Your task to perform on an android device: delete the emails in spam in the gmail app Image 0: 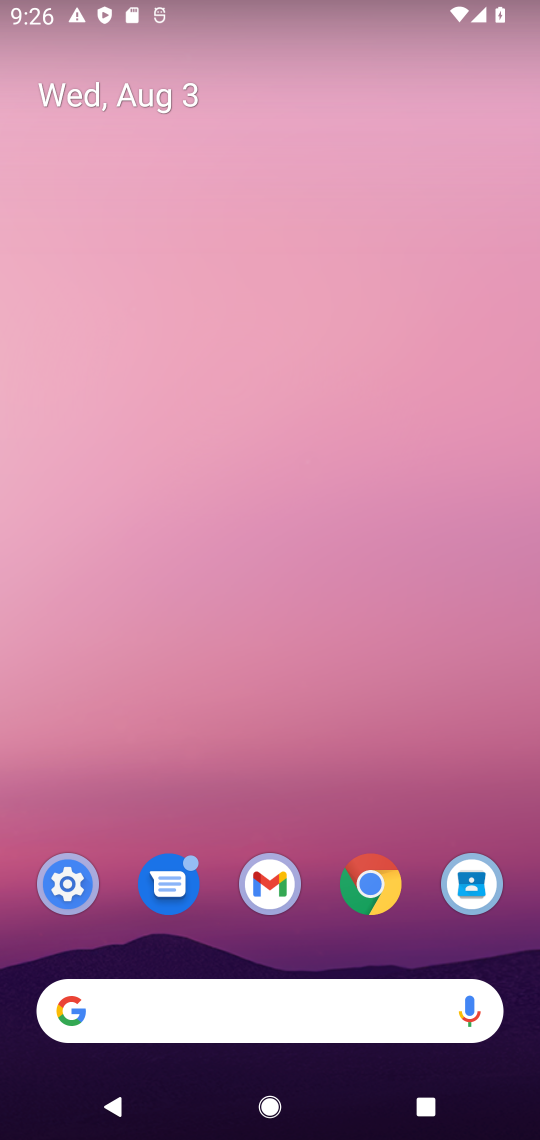
Step 0: drag from (260, 681) to (279, 20)
Your task to perform on an android device: delete the emails in spam in the gmail app Image 1: 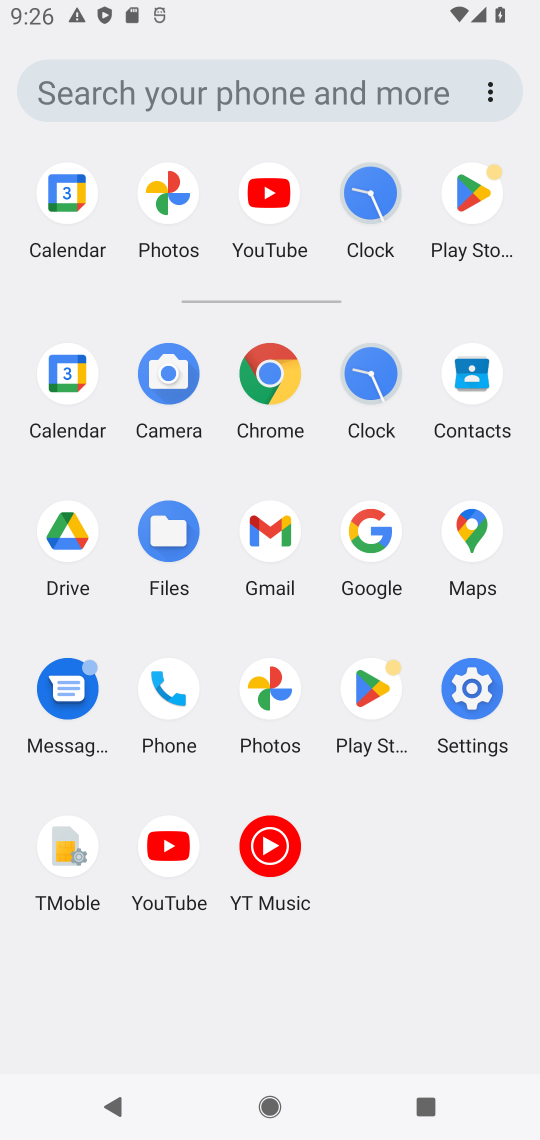
Step 1: click (282, 519)
Your task to perform on an android device: delete the emails in spam in the gmail app Image 2: 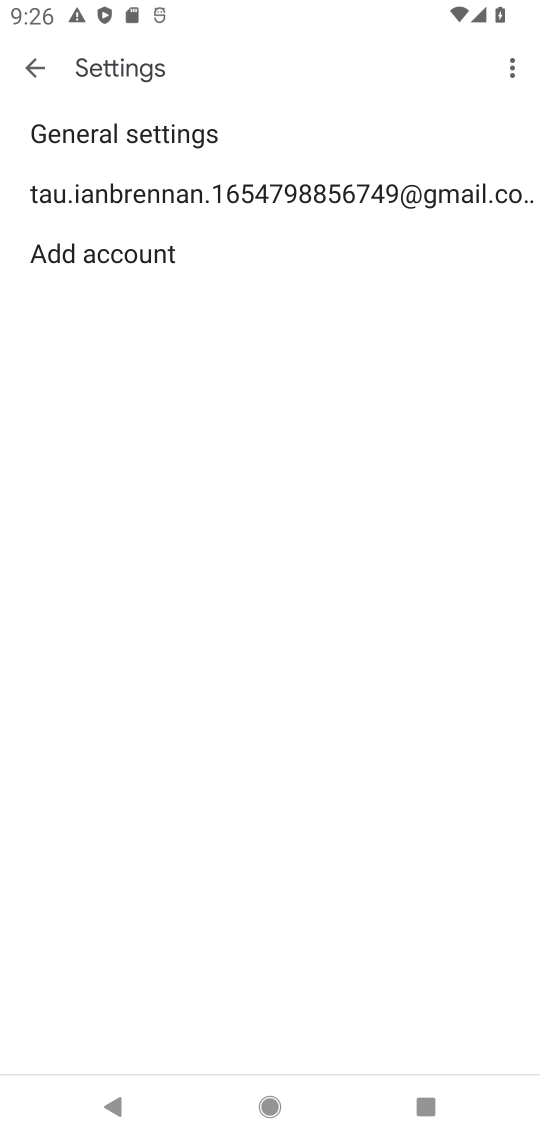
Step 2: click (41, 63)
Your task to perform on an android device: delete the emails in spam in the gmail app Image 3: 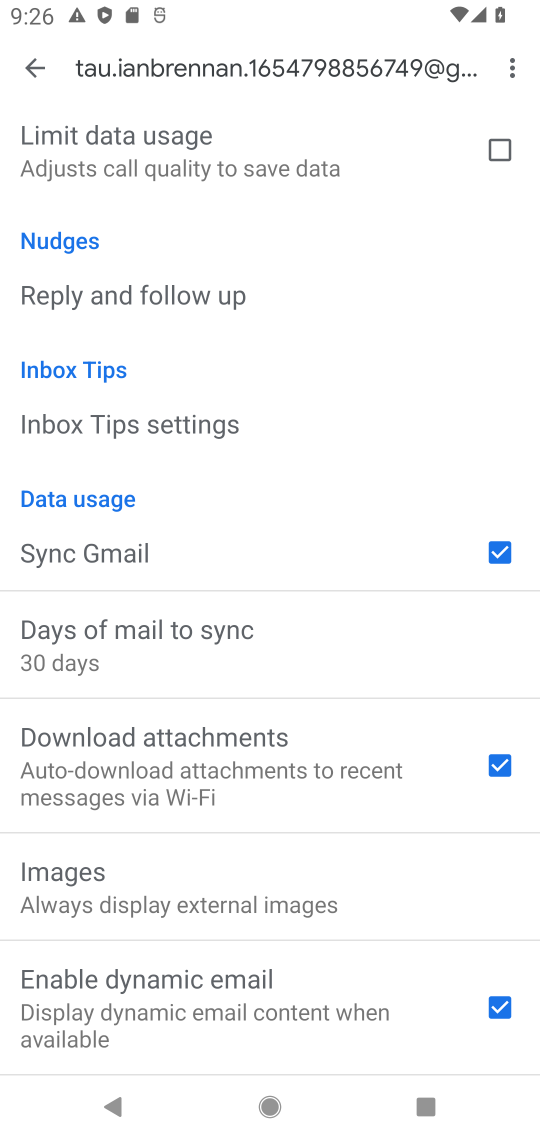
Step 3: click (29, 55)
Your task to perform on an android device: delete the emails in spam in the gmail app Image 4: 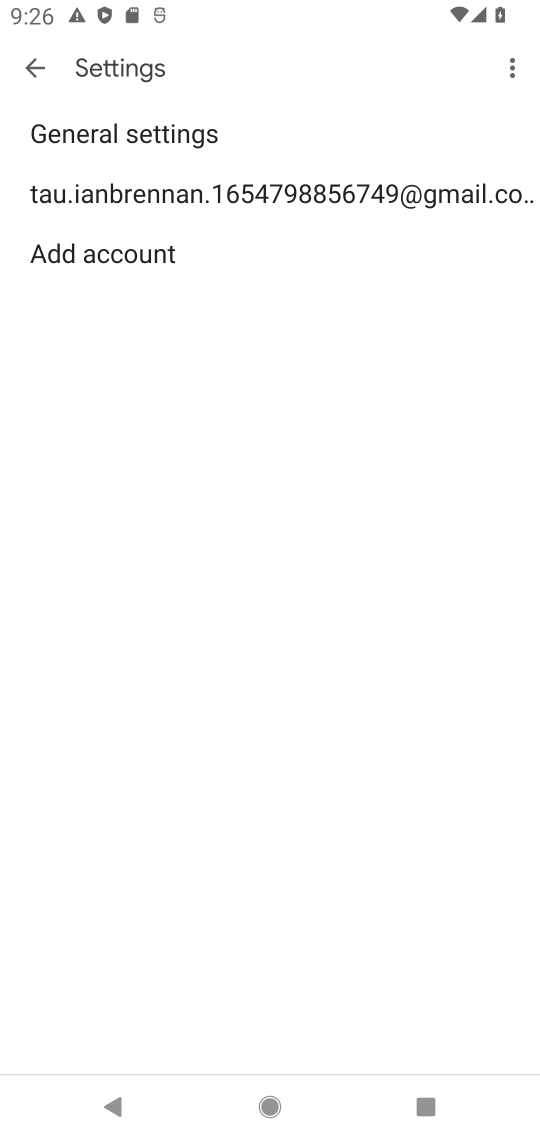
Step 4: click (29, 55)
Your task to perform on an android device: delete the emails in spam in the gmail app Image 5: 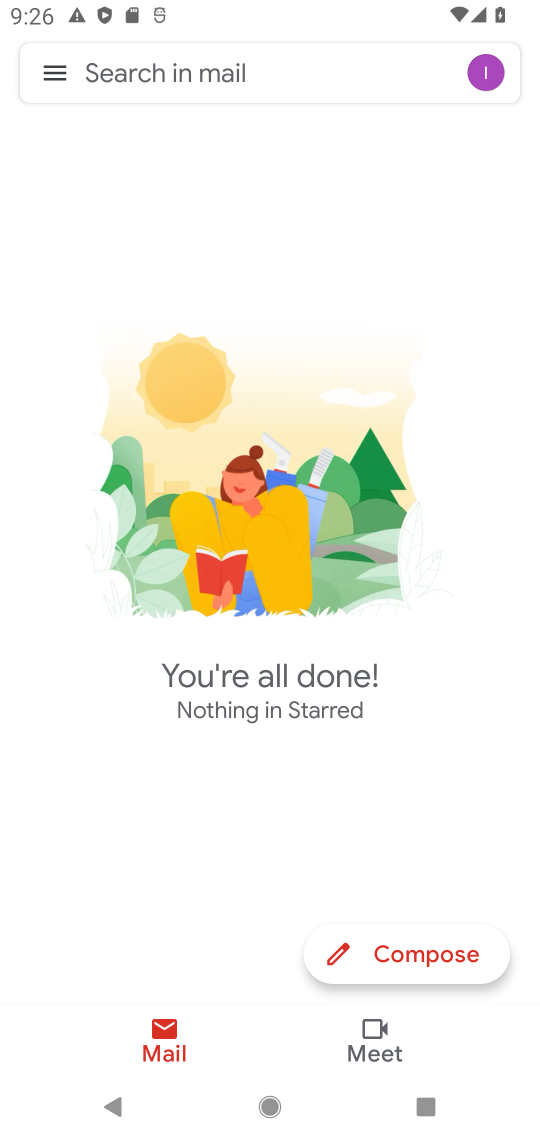
Step 5: task complete